Your task to perform on an android device: check battery use Image 0: 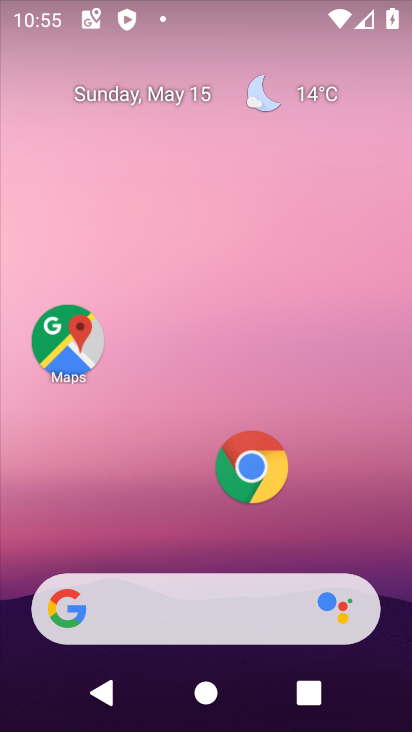
Step 0: click (176, 124)
Your task to perform on an android device: check battery use Image 1: 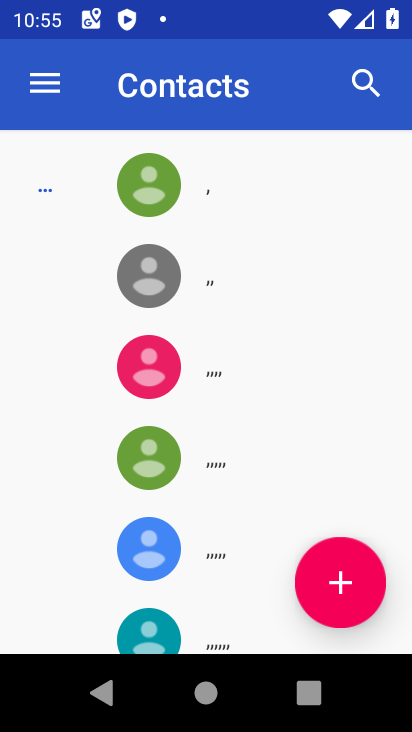
Step 1: press home button
Your task to perform on an android device: check battery use Image 2: 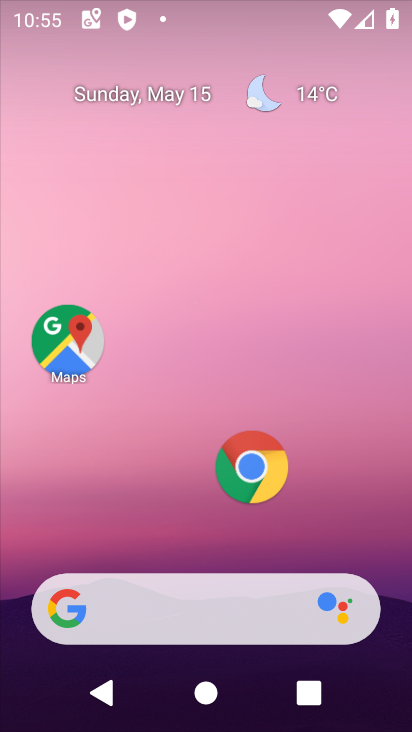
Step 2: drag from (175, 568) to (165, 106)
Your task to perform on an android device: check battery use Image 3: 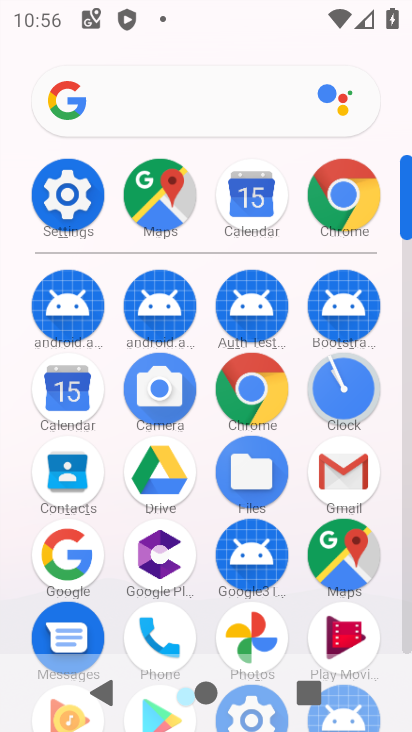
Step 3: click (75, 207)
Your task to perform on an android device: check battery use Image 4: 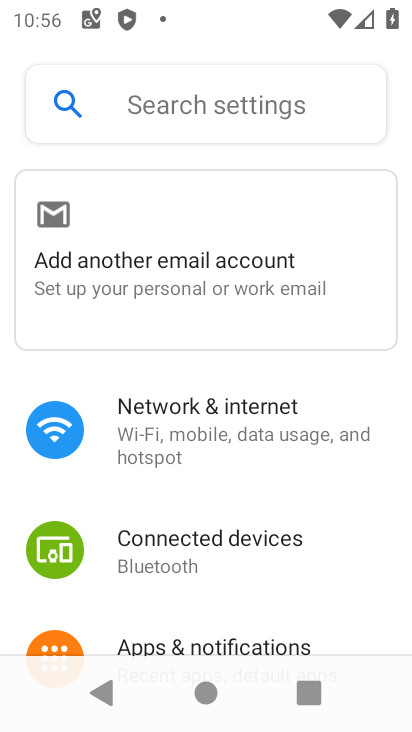
Step 4: drag from (238, 560) to (243, 109)
Your task to perform on an android device: check battery use Image 5: 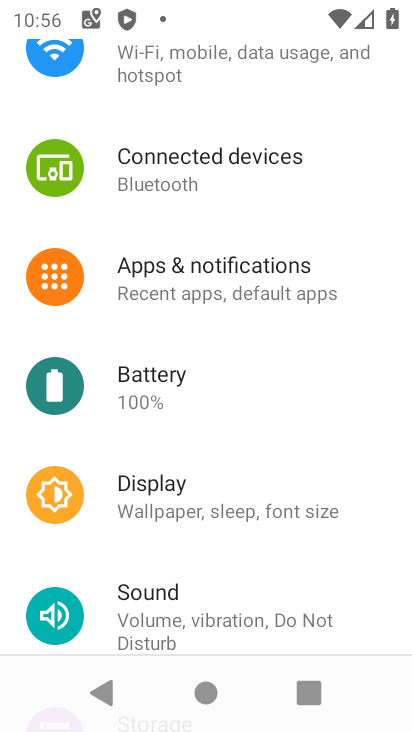
Step 5: click (190, 378)
Your task to perform on an android device: check battery use Image 6: 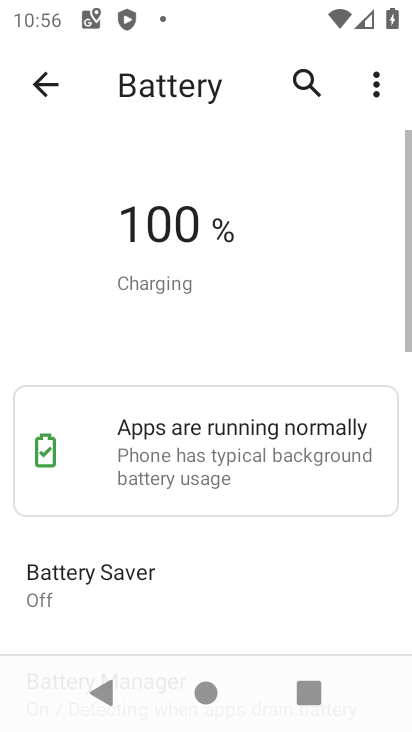
Step 6: click (360, 82)
Your task to perform on an android device: check battery use Image 7: 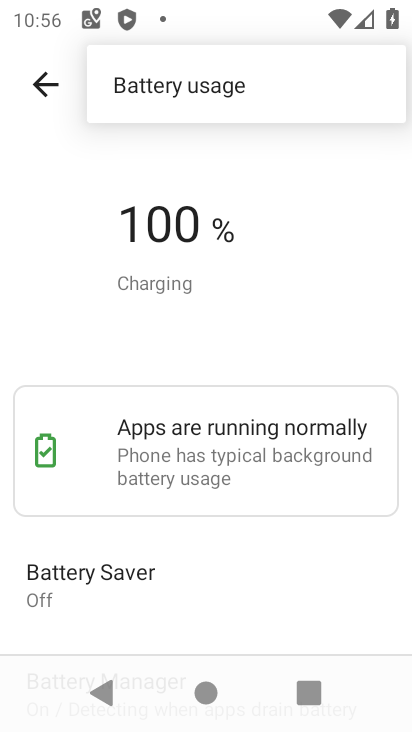
Step 7: click (128, 95)
Your task to perform on an android device: check battery use Image 8: 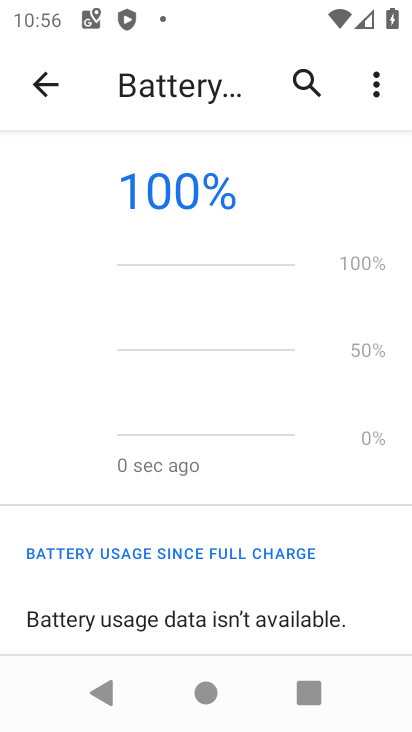
Step 8: task complete